Your task to perform on an android device: Is it going to rain this weekend? Image 0: 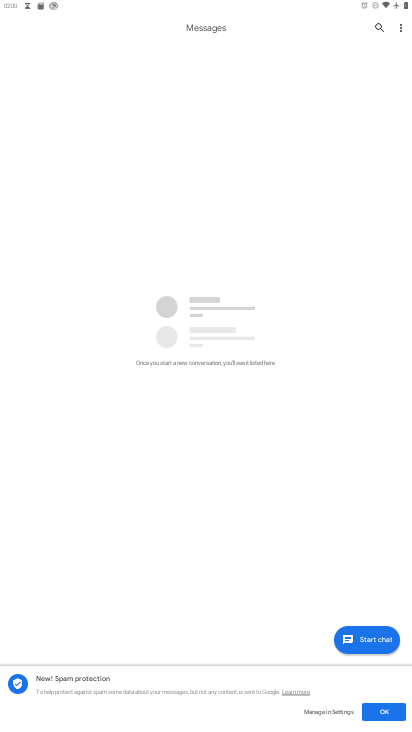
Step 0: press home button
Your task to perform on an android device: Is it going to rain this weekend? Image 1: 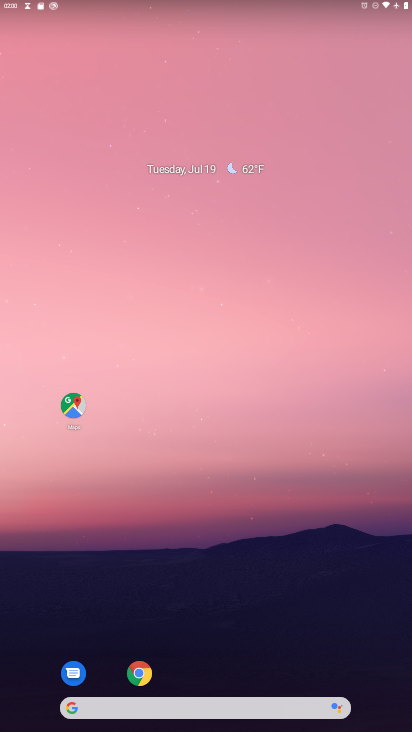
Step 1: drag from (213, 630) to (220, 322)
Your task to perform on an android device: Is it going to rain this weekend? Image 2: 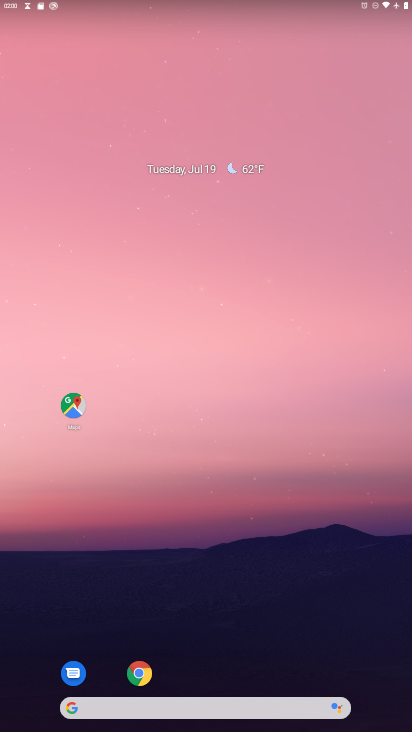
Step 2: drag from (248, 657) to (246, 243)
Your task to perform on an android device: Is it going to rain this weekend? Image 3: 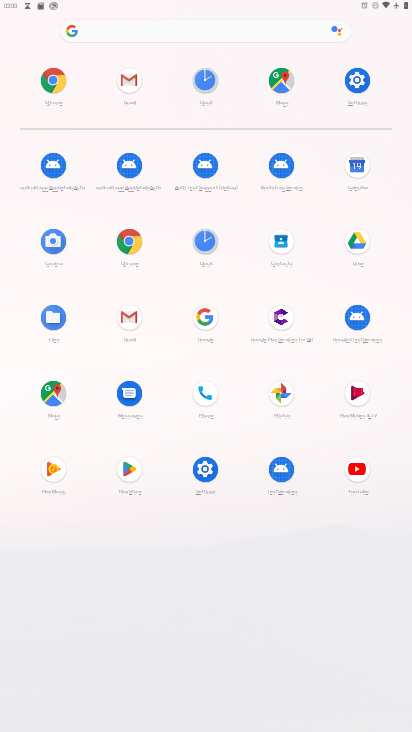
Step 3: click (46, 79)
Your task to perform on an android device: Is it going to rain this weekend? Image 4: 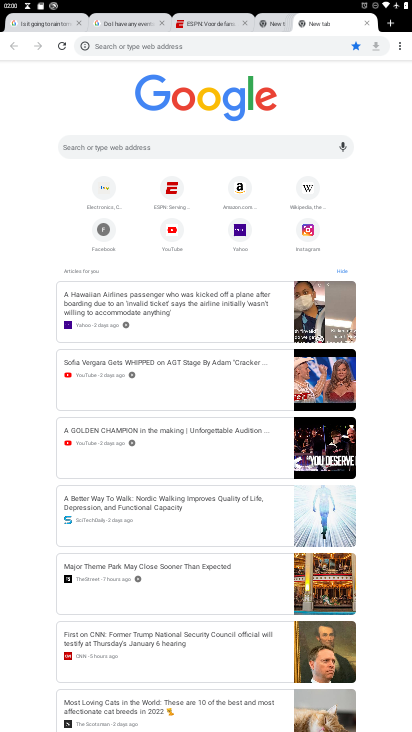
Step 4: click (206, 131)
Your task to perform on an android device: Is it going to rain this weekend? Image 5: 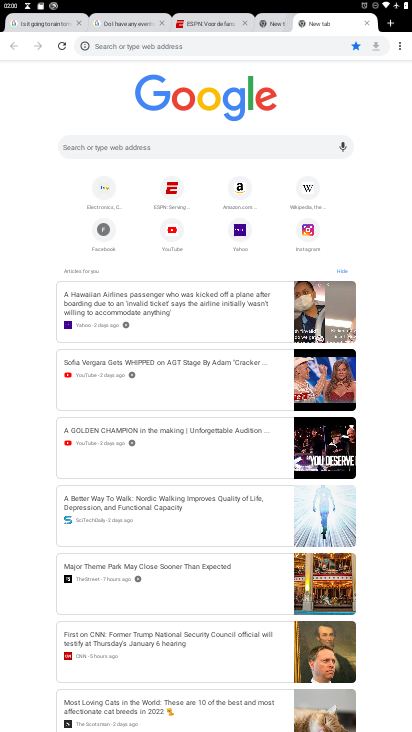
Step 5: type "Is it going to rain this weekend "
Your task to perform on an android device: Is it going to rain this weekend? Image 6: 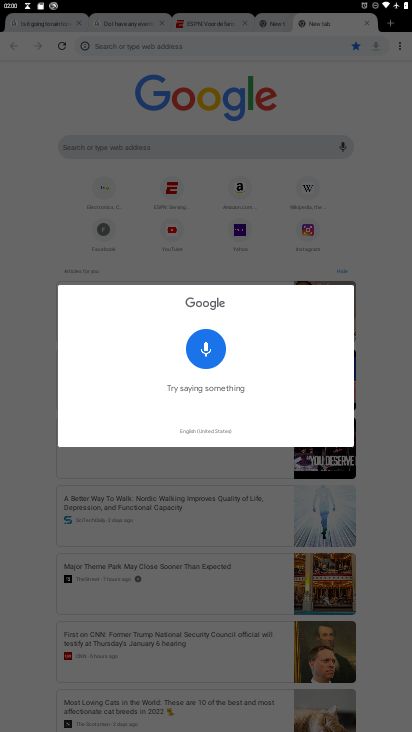
Step 6: click (376, 166)
Your task to perform on an android device: Is it going to rain this weekend? Image 7: 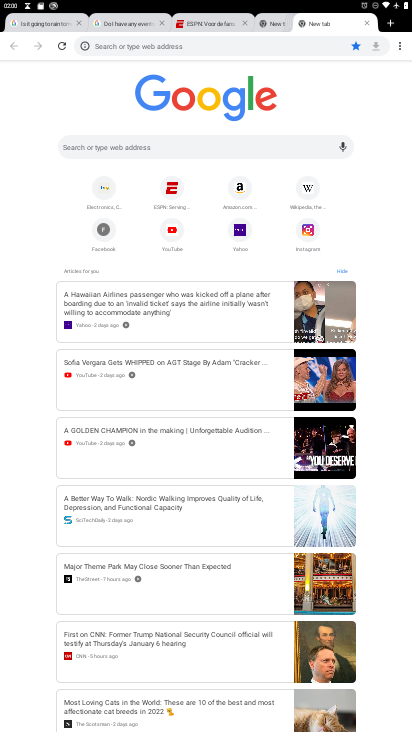
Step 7: click (240, 145)
Your task to perform on an android device: Is it going to rain this weekend? Image 8: 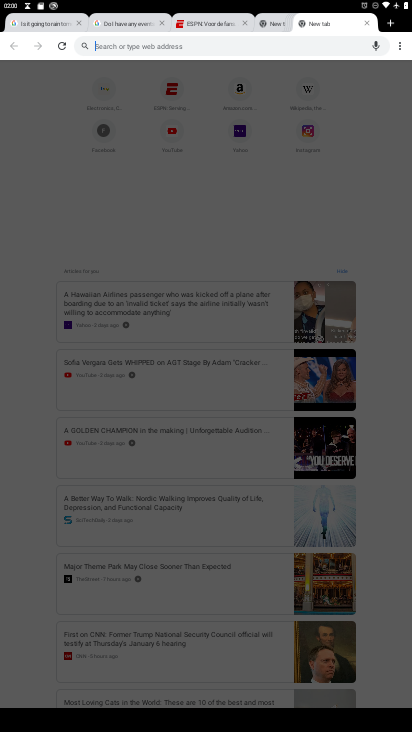
Step 8: type "Is it going to rain this weekend? "
Your task to perform on an android device: Is it going to rain this weekend? Image 9: 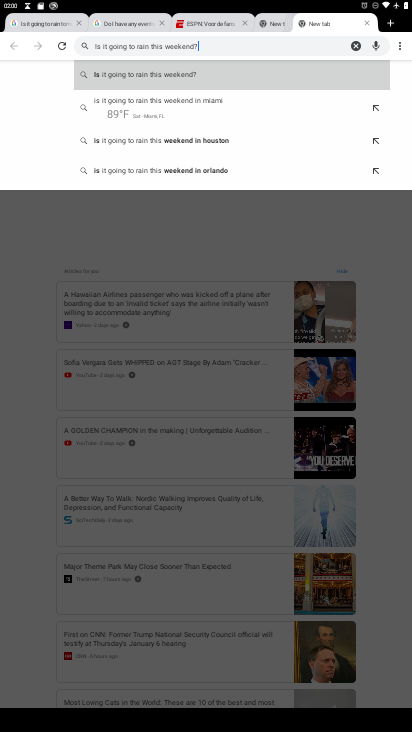
Step 9: click (170, 40)
Your task to perform on an android device: Is it going to rain this weekend? Image 10: 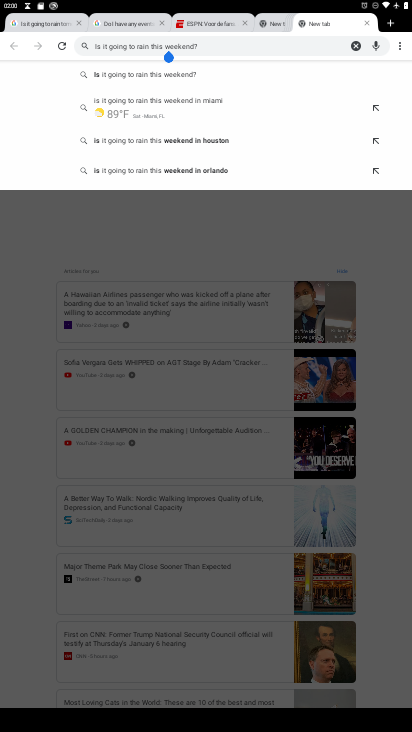
Step 10: click (143, 77)
Your task to perform on an android device: Is it going to rain this weekend? Image 11: 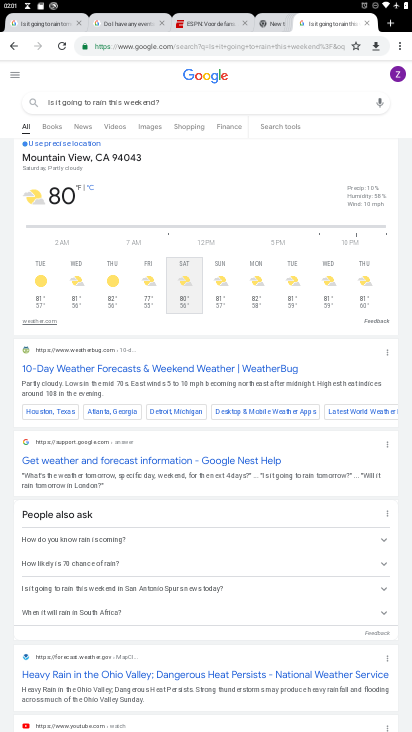
Step 11: task complete